Your task to perform on an android device: turn pop-ups on in chrome Image 0: 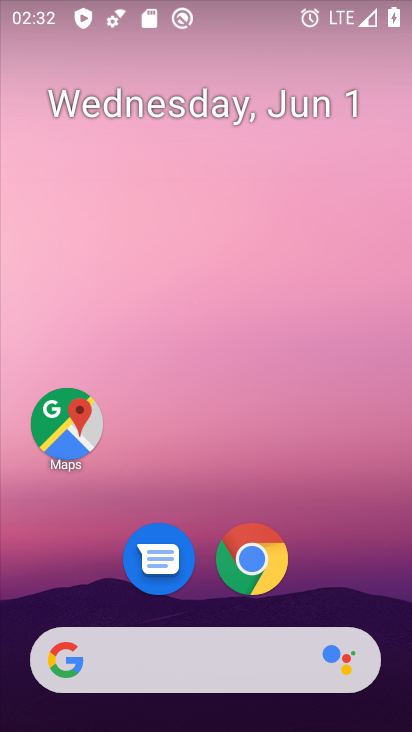
Step 0: click (255, 568)
Your task to perform on an android device: turn pop-ups on in chrome Image 1: 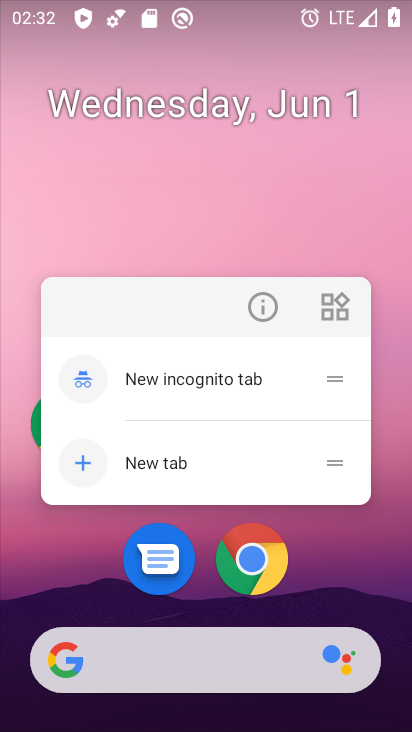
Step 1: click (255, 566)
Your task to perform on an android device: turn pop-ups on in chrome Image 2: 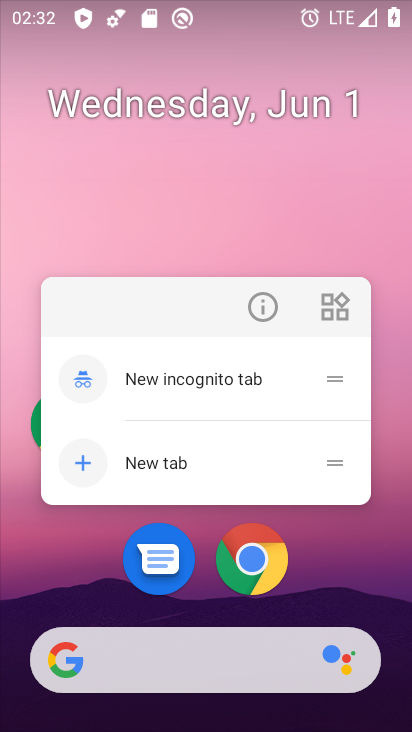
Step 2: click (325, 559)
Your task to perform on an android device: turn pop-ups on in chrome Image 3: 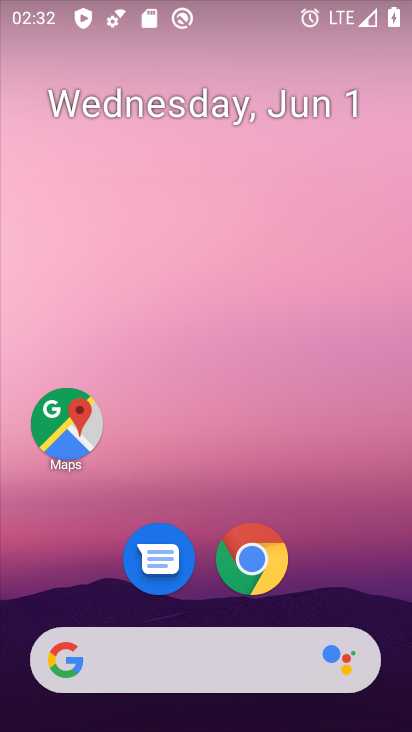
Step 3: click (247, 561)
Your task to perform on an android device: turn pop-ups on in chrome Image 4: 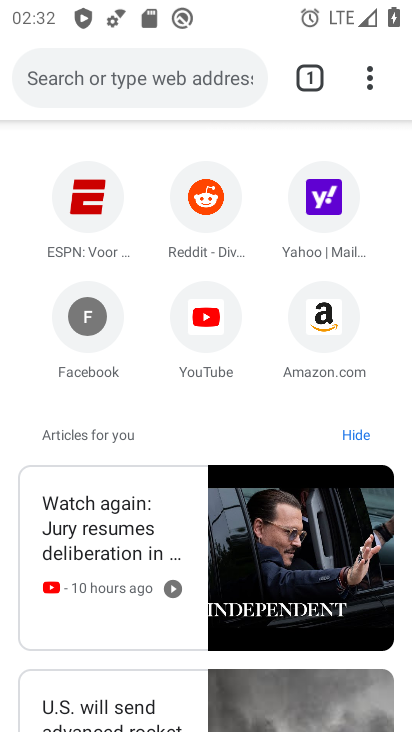
Step 4: drag from (372, 82) to (83, 648)
Your task to perform on an android device: turn pop-ups on in chrome Image 5: 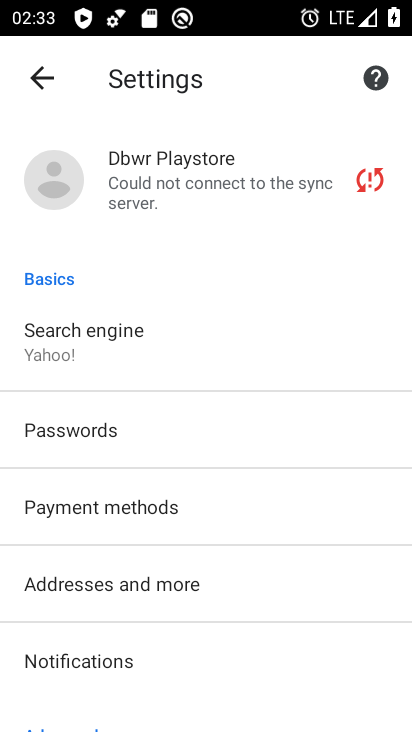
Step 5: drag from (265, 637) to (329, 265)
Your task to perform on an android device: turn pop-ups on in chrome Image 6: 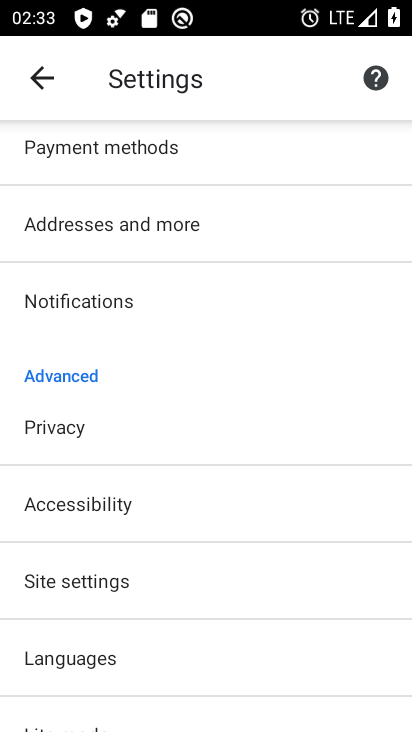
Step 6: click (71, 581)
Your task to perform on an android device: turn pop-ups on in chrome Image 7: 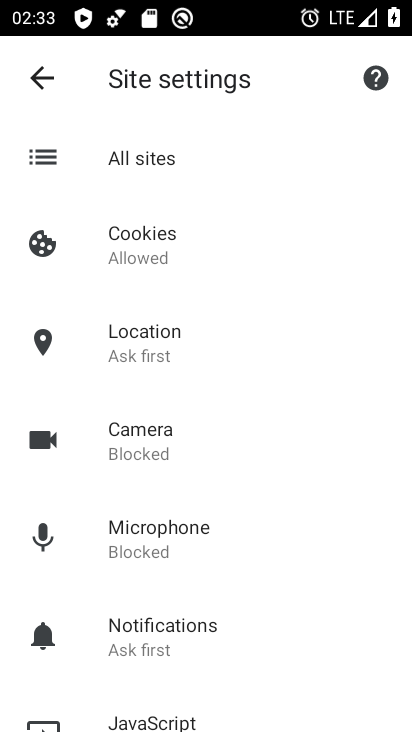
Step 7: drag from (360, 617) to (409, 293)
Your task to perform on an android device: turn pop-ups on in chrome Image 8: 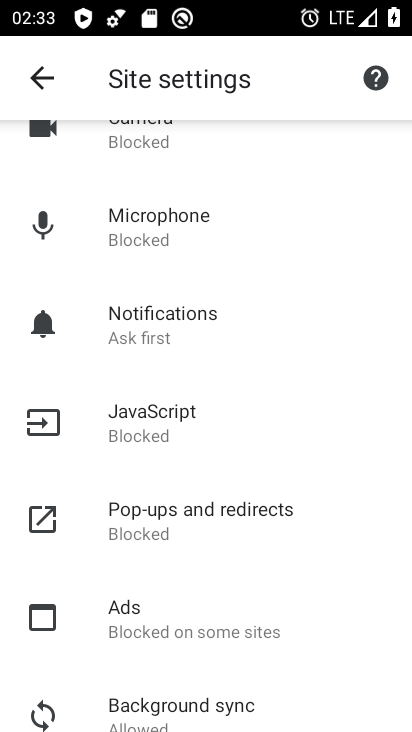
Step 8: click (144, 525)
Your task to perform on an android device: turn pop-ups on in chrome Image 9: 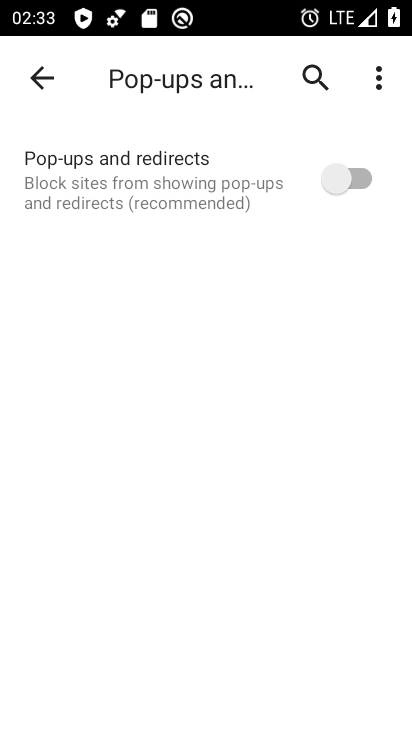
Step 9: click (344, 181)
Your task to perform on an android device: turn pop-ups on in chrome Image 10: 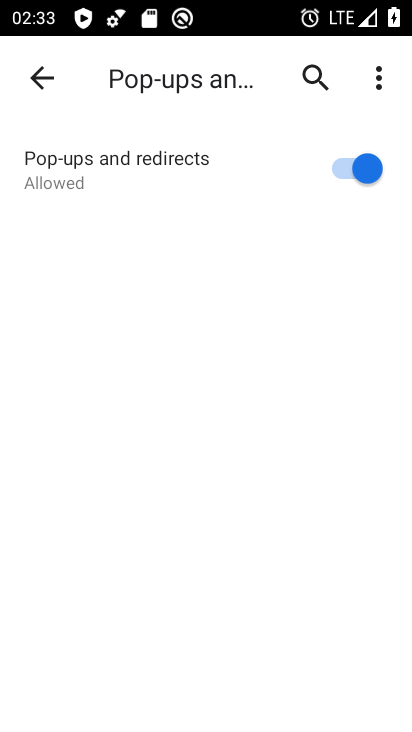
Step 10: task complete